Your task to perform on an android device: turn smart compose on in the gmail app Image 0: 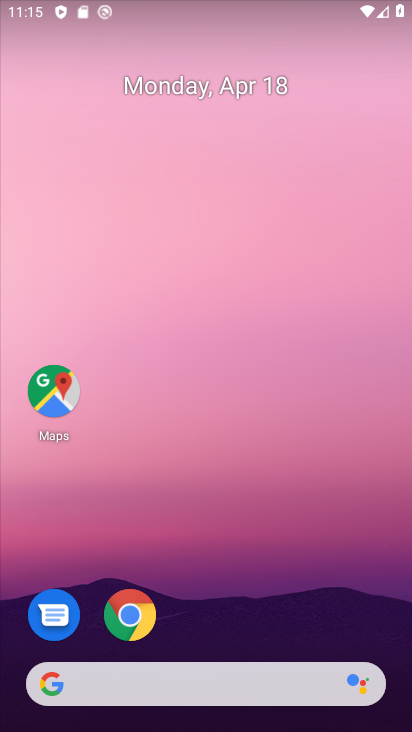
Step 0: drag from (201, 704) to (198, 132)
Your task to perform on an android device: turn smart compose on in the gmail app Image 1: 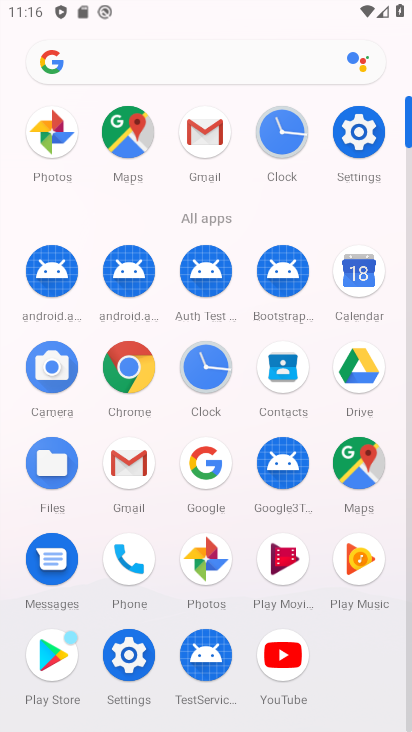
Step 1: click (206, 134)
Your task to perform on an android device: turn smart compose on in the gmail app Image 2: 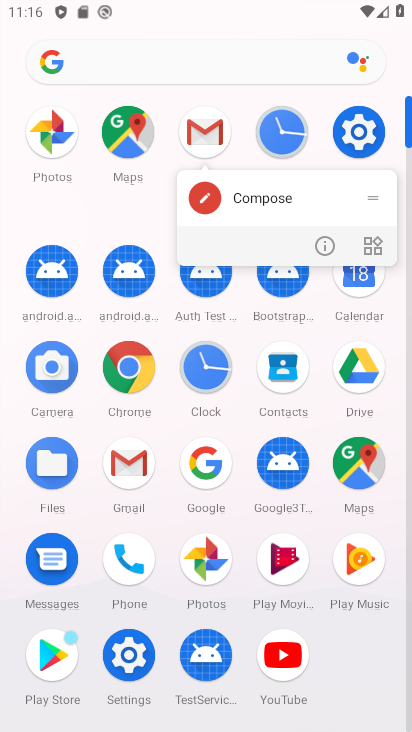
Step 2: click (208, 152)
Your task to perform on an android device: turn smart compose on in the gmail app Image 3: 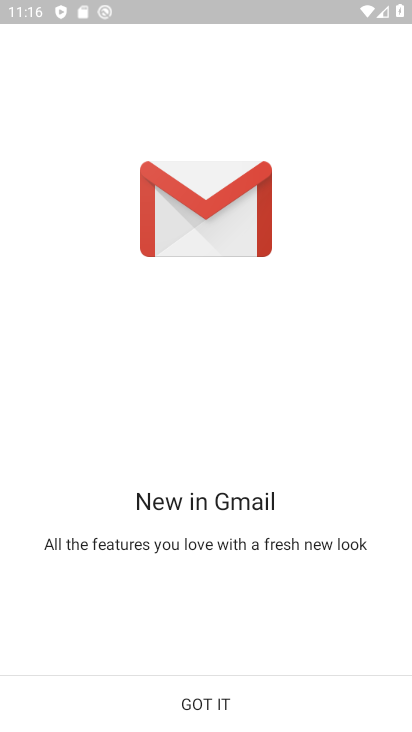
Step 3: click (194, 703)
Your task to perform on an android device: turn smart compose on in the gmail app Image 4: 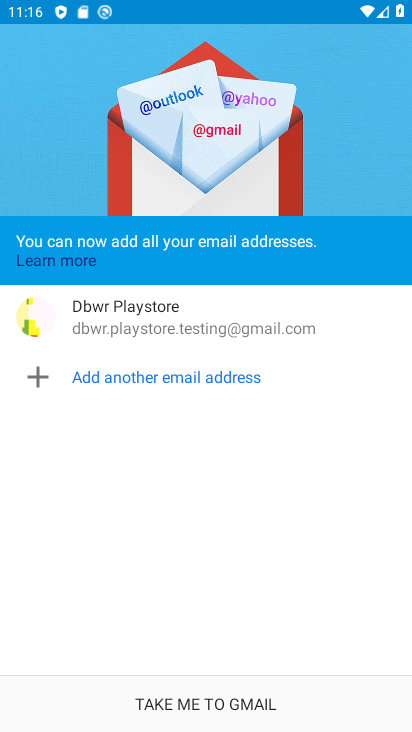
Step 4: click (194, 703)
Your task to perform on an android device: turn smart compose on in the gmail app Image 5: 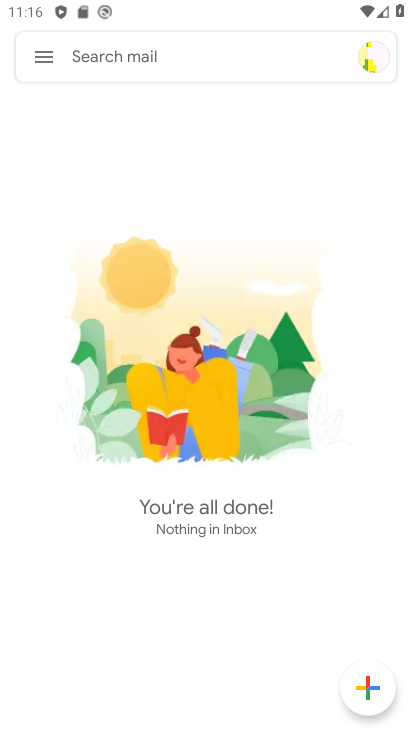
Step 5: click (40, 50)
Your task to perform on an android device: turn smart compose on in the gmail app Image 6: 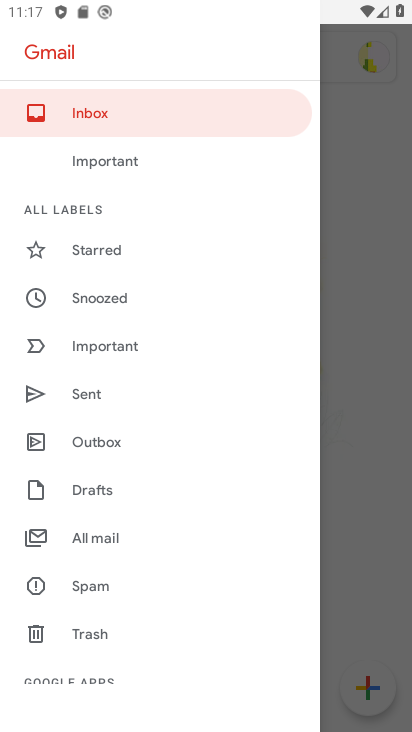
Step 6: drag from (131, 597) to (132, 109)
Your task to perform on an android device: turn smart compose on in the gmail app Image 7: 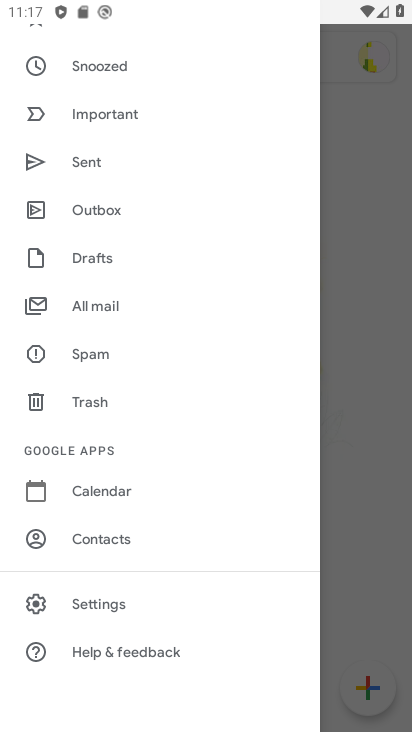
Step 7: click (121, 602)
Your task to perform on an android device: turn smart compose on in the gmail app Image 8: 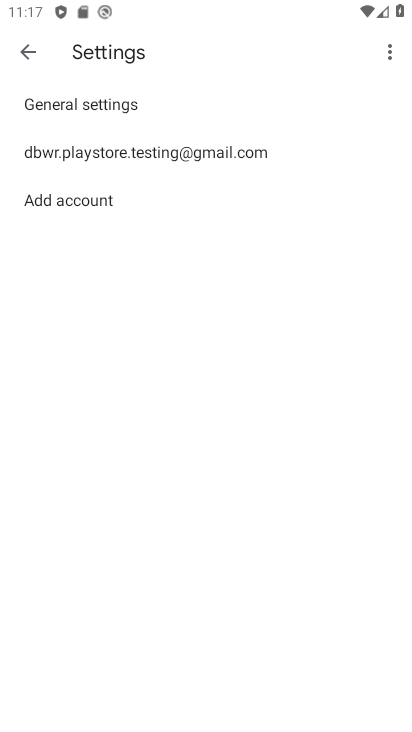
Step 8: click (138, 151)
Your task to perform on an android device: turn smart compose on in the gmail app Image 9: 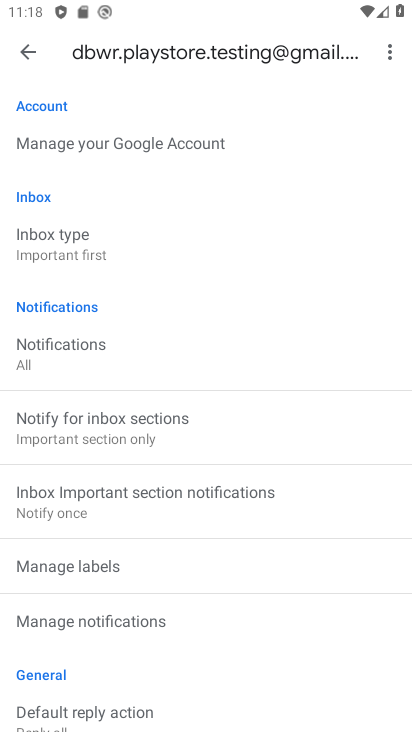
Step 9: task complete